Your task to perform on an android device: find which apps use the phone's location Image 0: 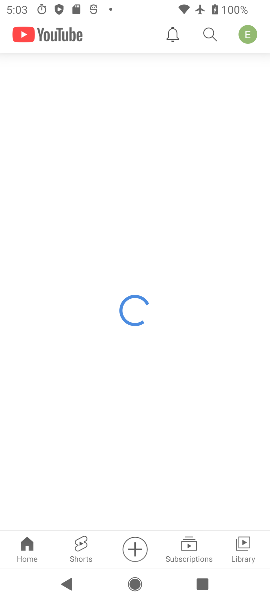
Step 0: press back button
Your task to perform on an android device: find which apps use the phone's location Image 1: 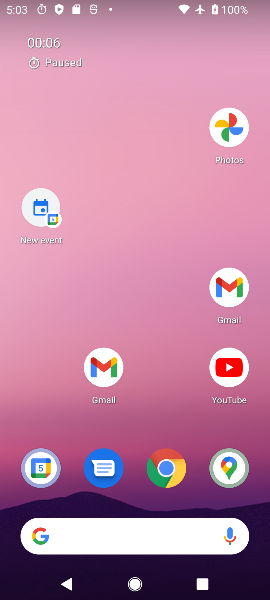
Step 1: press home button
Your task to perform on an android device: find which apps use the phone's location Image 2: 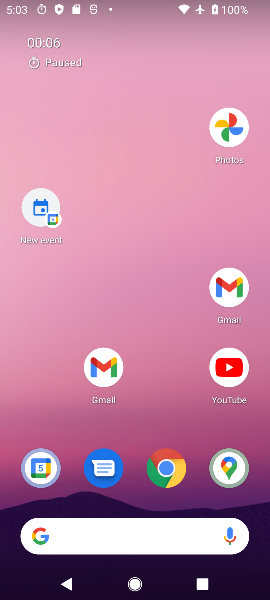
Step 2: drag from (153, 558) to (88, 123)
Your task to perform on an android device: find which apps use the phone's location Image 3: 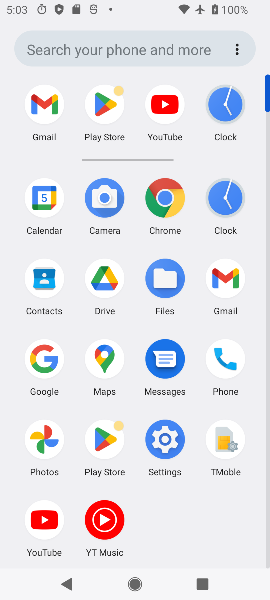
Step 3: click (159, 442)
Your task to perform on an android device: find which apps use the phone's location Image 4: 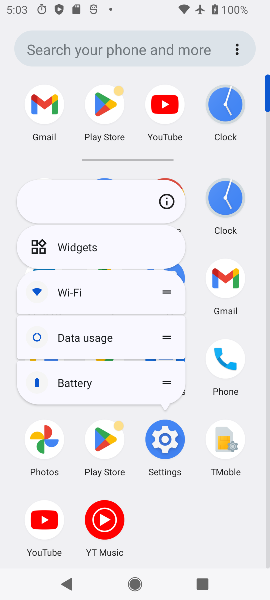
Step 4: click (159, 442)
Your task to perform on an android device: find which apps use the phone's location Image 5: 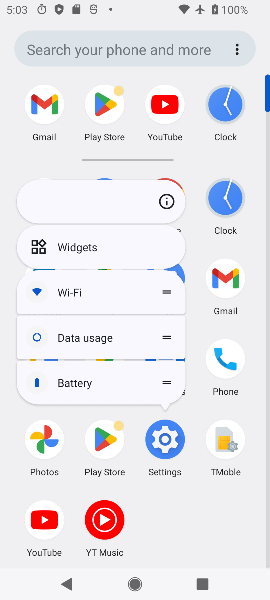
Step 5: click (166, 437)
Your task to perform on an android device: find which apps use the phone's location Image 6: 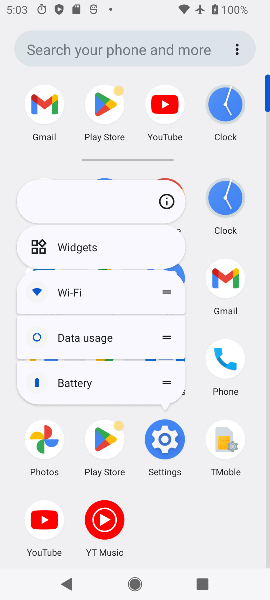
Step 6: click (164, 437)
Your task to perform on an android device: find which apps use the phone's location Image 7: 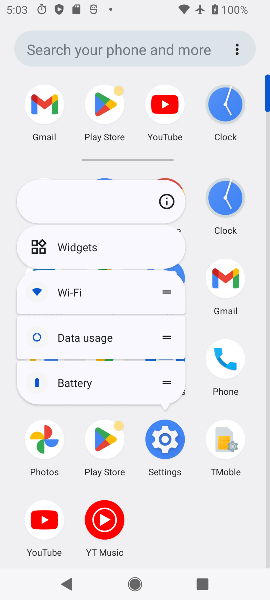
Step 7: click (168, 447)
Your task to perform on an android device: find which apps use the phone's location Image 8: 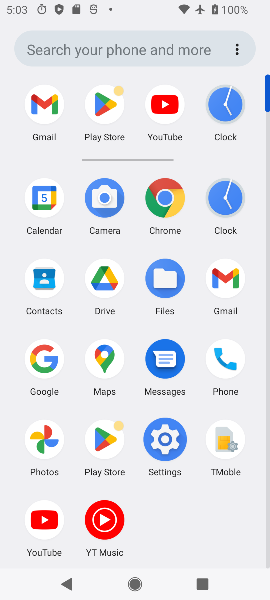
Step 8: click (168, 447)
Your task to perform on an android device: find which apps use the phone's location Image 9: 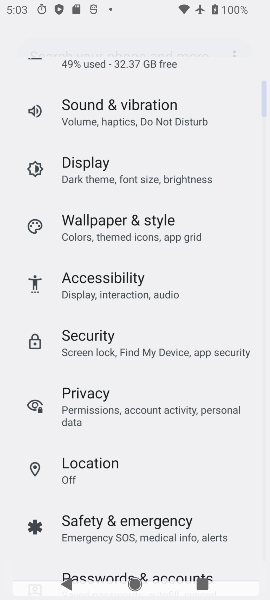
Step 9: click (166, 441)
Your task to perform on an android device: find which apps use the phone's location Image 10: 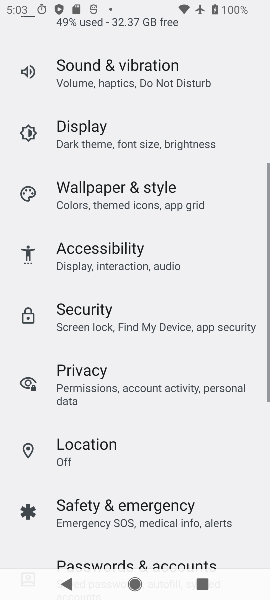
Step 10: click (166, 441)
Your task to perform on an android device: find which apps use the phone's location Image 11: 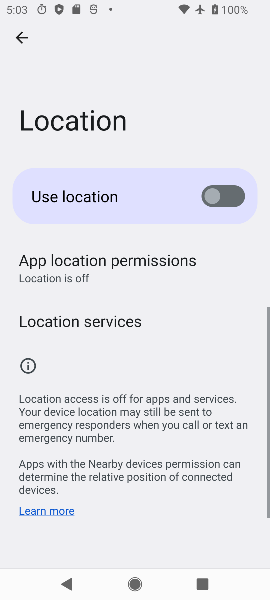
Step 11: click (21, 40)
Your task to perform on an android device: find which apps use the phone's location Image 12: 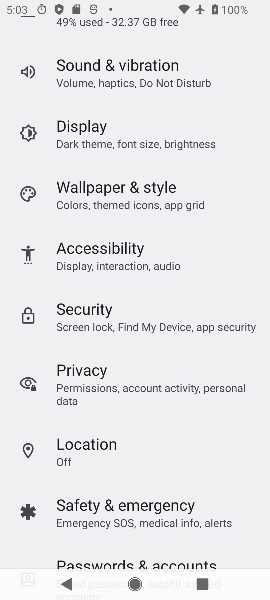
Step 12: click (96, 445)
Your task to perform on an android device: find which apps use the phone's location Image 13: 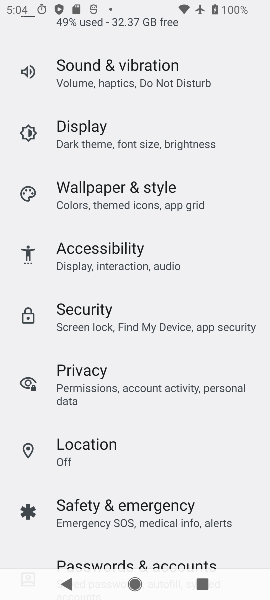
Step 13: click (96, 445)
Your task to perform on an android device: find which apps use the phone's location Image 14: 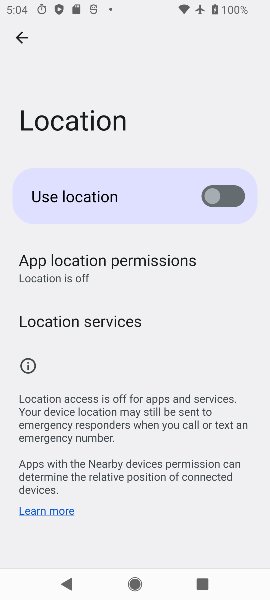
Step 14: click (87, 270)
Your task to perform on an android device: find which apps use the phone's location Image 15: 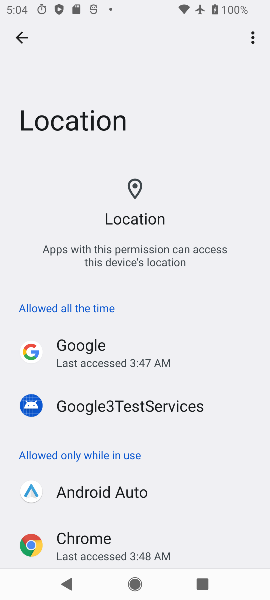
Step 15: task complete